Your task to perform on an android device: Show me recent news Image 0: 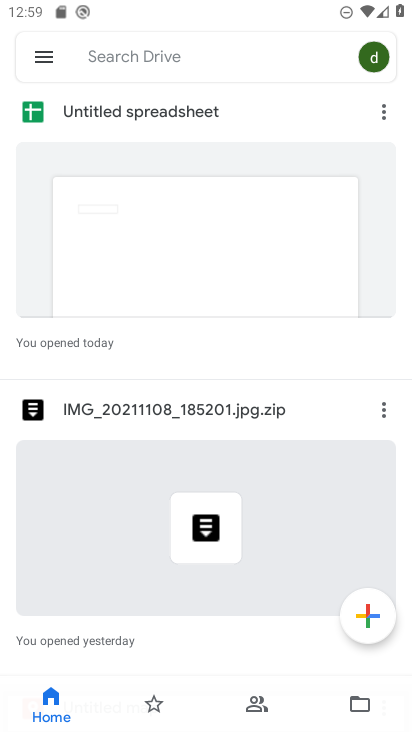
Step 0: press home button
Your task to perform on an android device: Show me recent news Image 1: 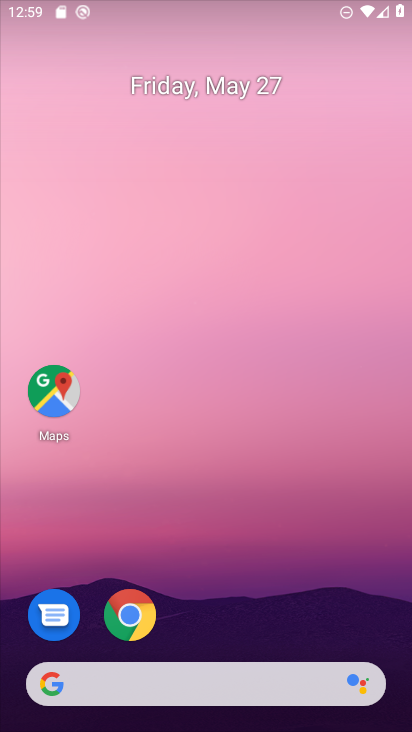
Step 1: drag from (221, 616) to (260, 183)
Your task to perform on an android device: Show me recent news Image 2: 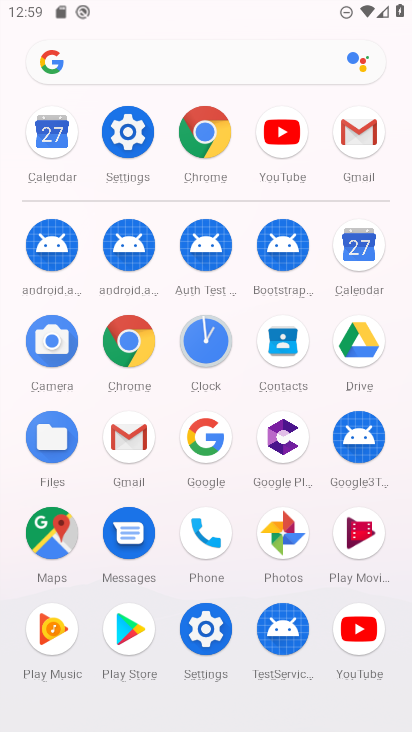
Step 2: click (210, 443)
Your task to perform on an android device: Show me recent news Image 3: 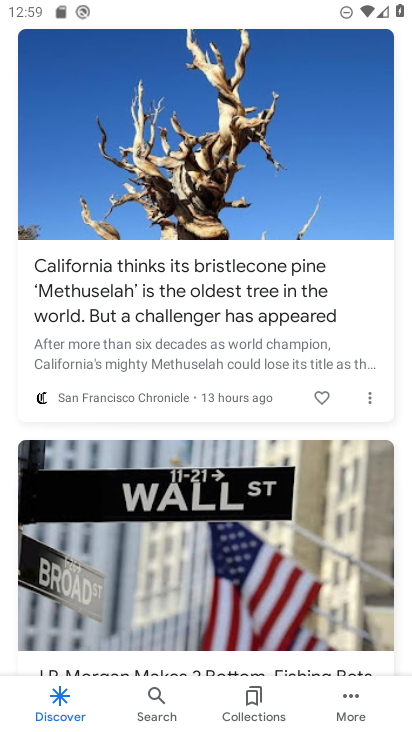
Step 3: task complete